Your task to perform on an android device: star an email in the gmail app Image 0: 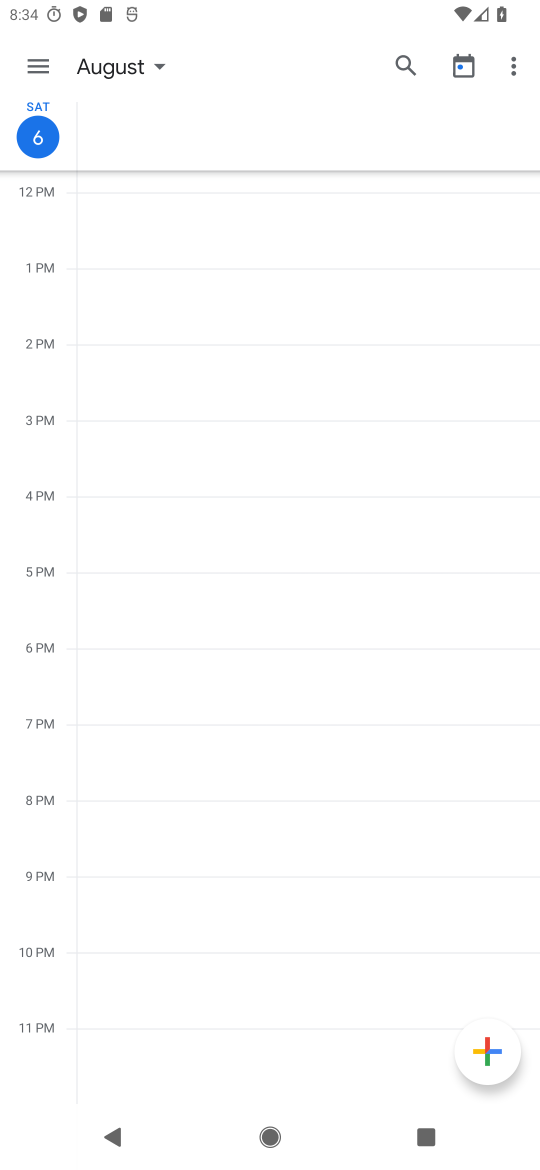
Step 0: press home button
Your task to perform on an android device: star an email in the gmail app Image 1: 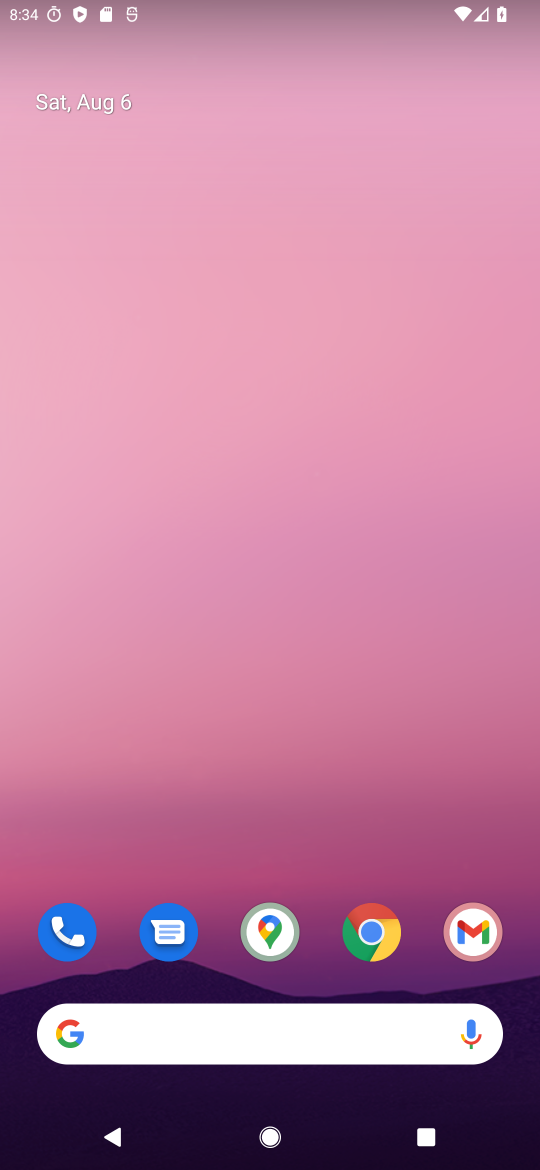
Step 1: click (470, 938)
Your task to perform on an android device: star an email in the gmail app Image 2: 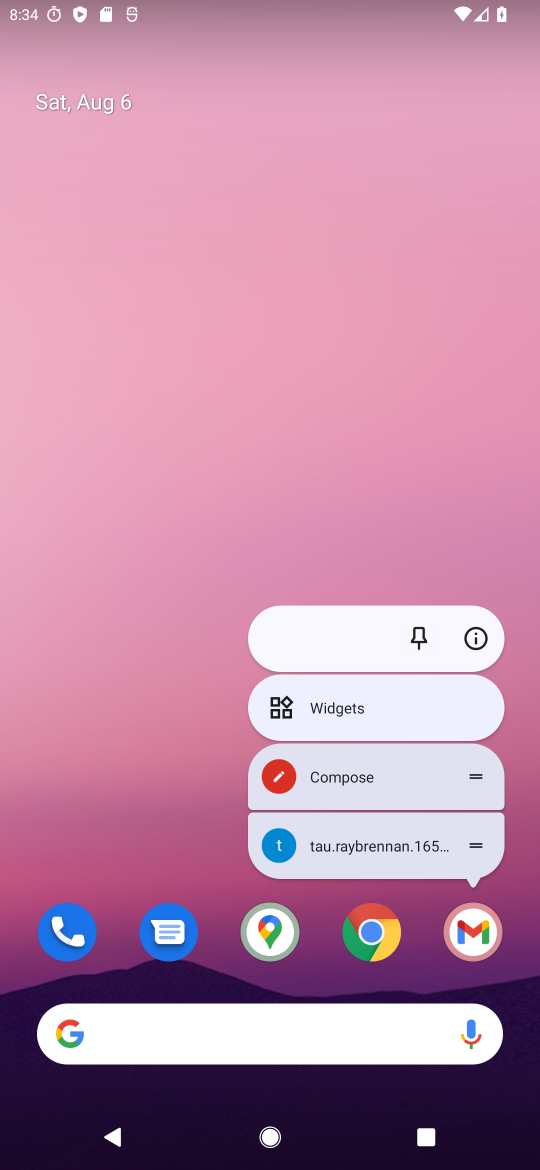
Step 2: click (470, 941)
Your task to perform on an android device: star an email in the gmail app Image 3: 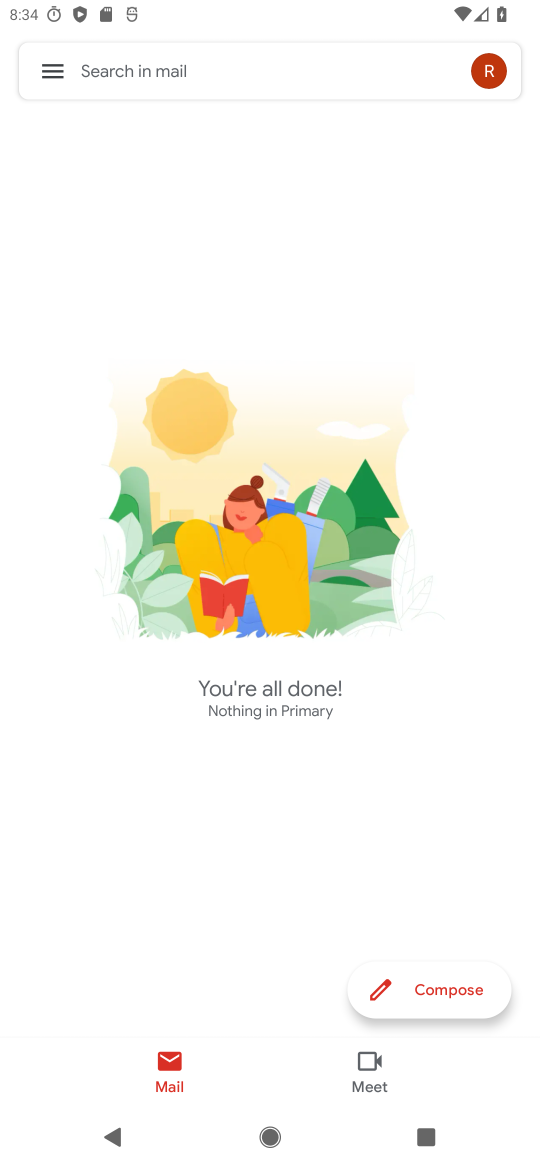
Step 3: click (48, 61)
Your task to perform on an android device: star an email in the gmail app Image 4: 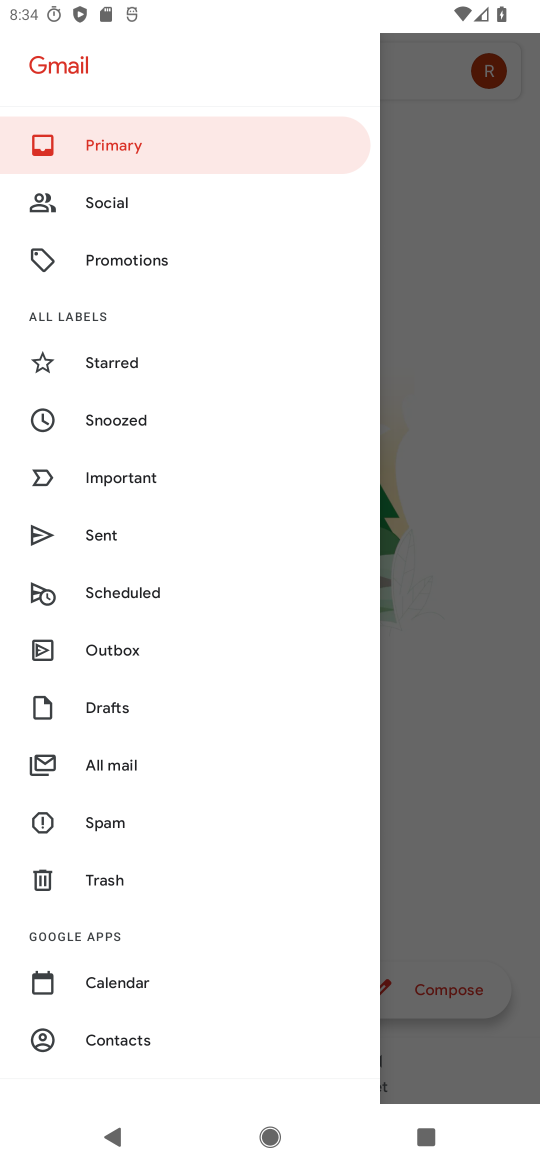
Step 4: click (136, 760)
Your task to perform on an android device: star an email in the gmail app Image 5: 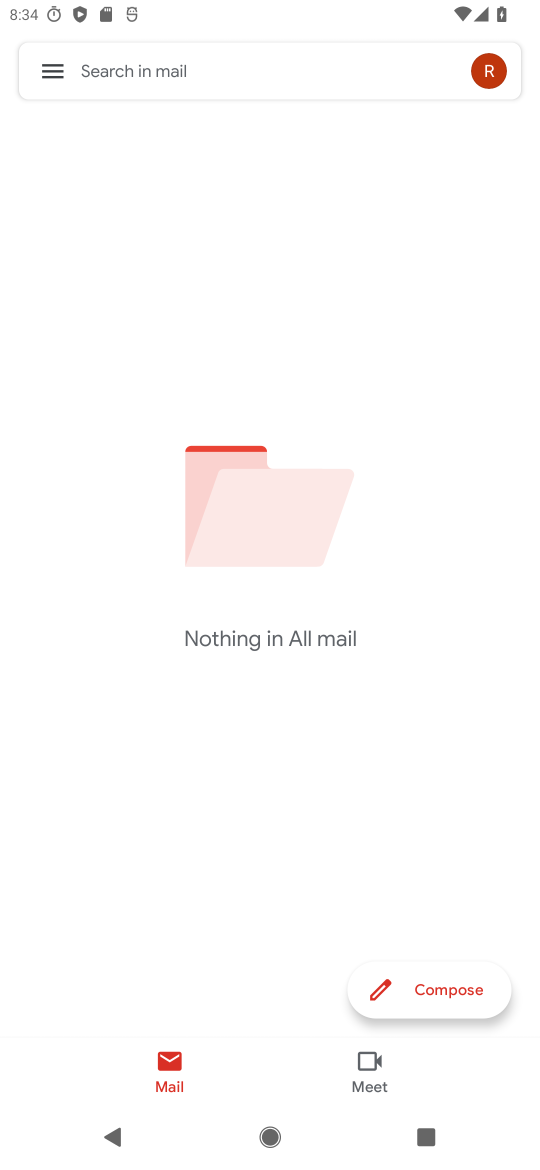
Step 5: task complete